Your task to perform on an android device: Search for Italian restaurants on Maps Image 0: 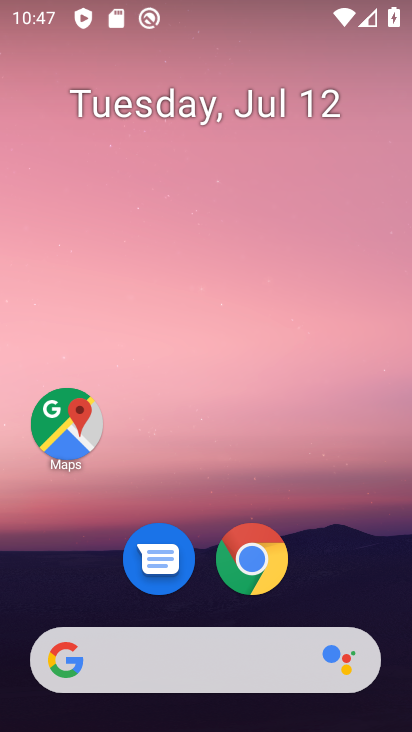
Step 0: drag from (246, 669) to (306, 189)
Your task to perform on an android device: Search for Italian restaurants on Maps Image 1: 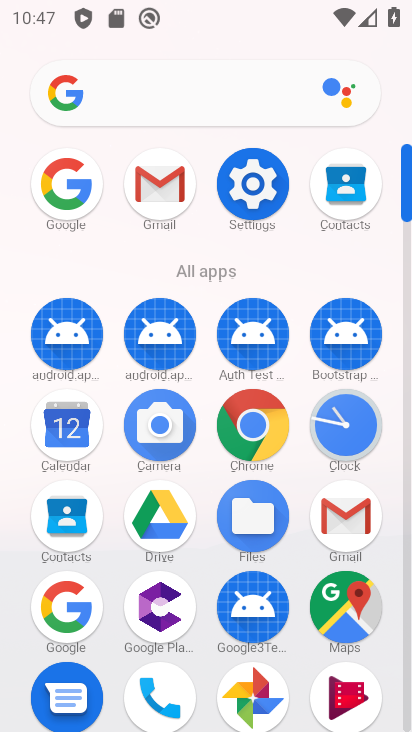
Step 1: click (361, 616)
Your task to perform on an android device: Search for Italian restaurants on Maps Image 2: 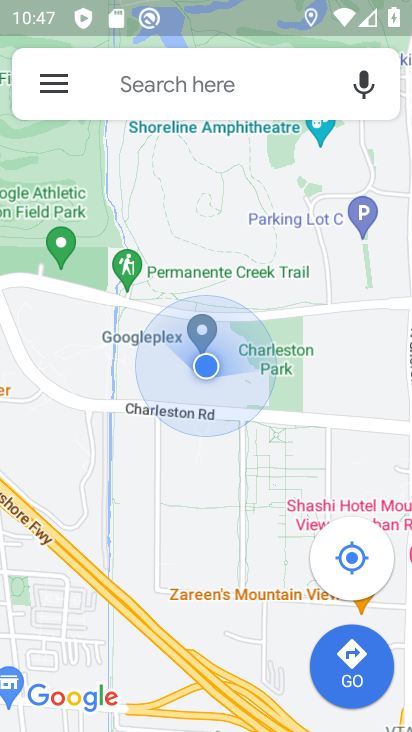
Step 2: click (244, 96)
Your task to perform on an android device: Search for Italian restaurants on Maps Image 3: 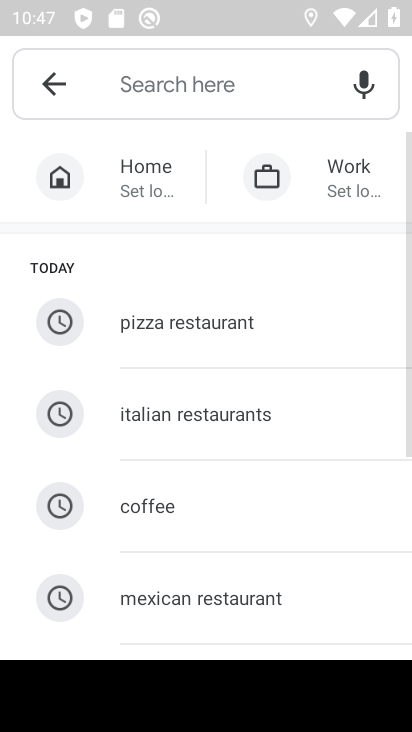
Step 3: click (203, 427)
Your task to perform on an android device: Search for Italian restaurants on Maps Image 4: 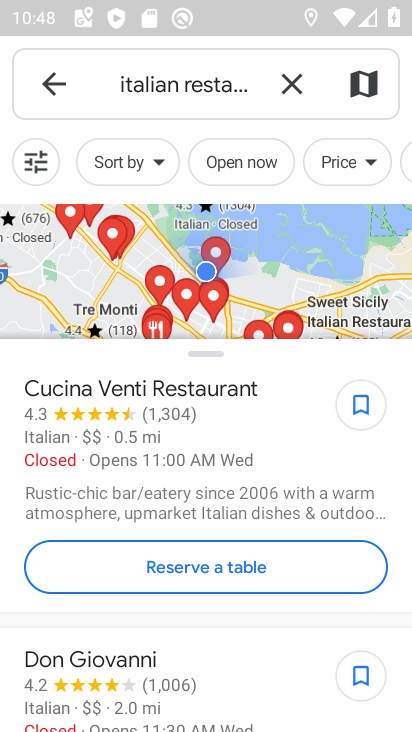
Step 4: task complete